Your task to perform on an android device: Go to privacy settings Image 0: 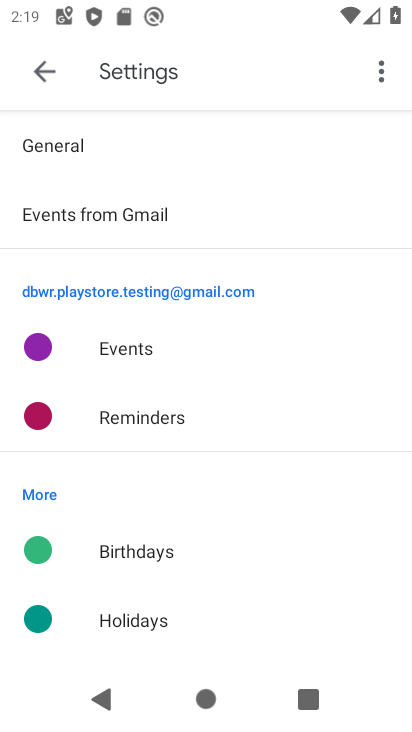
Step 0: press home button
Your task to perform on an android device: Go to privacy settings Image 1: 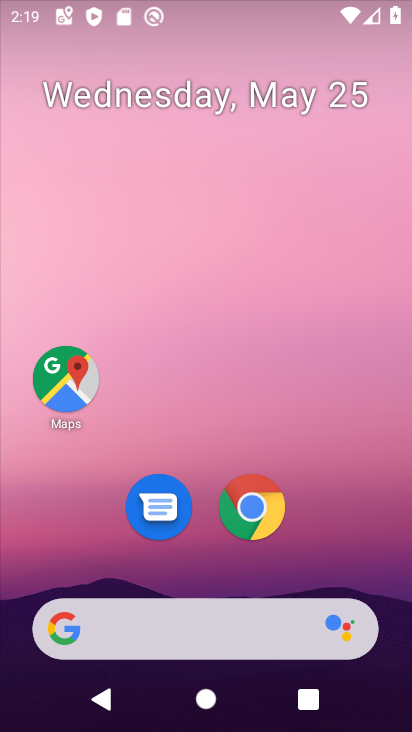
Step 1: drag from (250, 657) to (236, 133)
Your task to perform on an android device: Go to privacy settings Image 2: 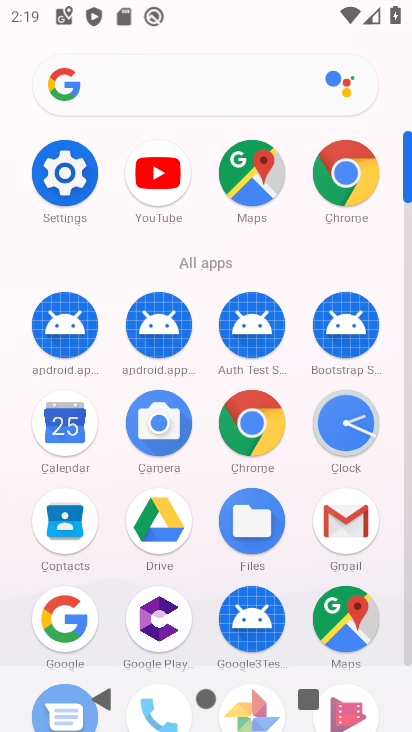
Step 2: click (79, 173)
Your task to perform on an android device: Go to privacy settings Image 3: 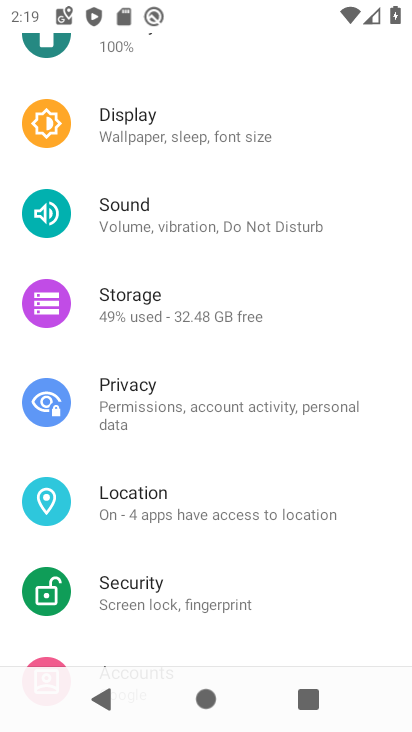
Step 3: drag from (188, 522) to (249, 139)
Your task to perform on an android device: Go to privacy settings Image 4: 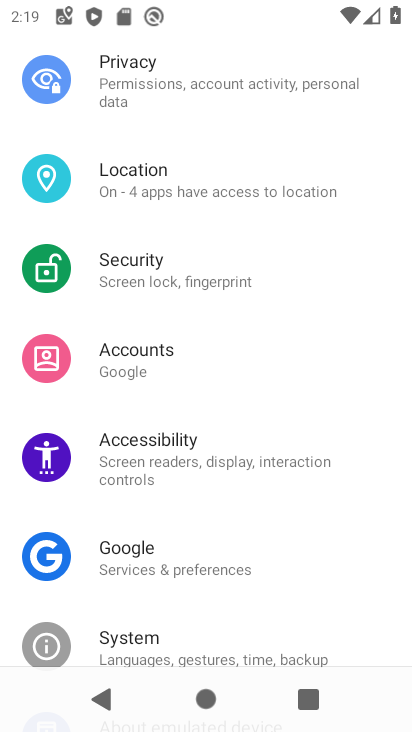
Step 4: drag from (248, 207) to (246, 583)
Your task to perform on an android device: Go to privacy settings Image 5: 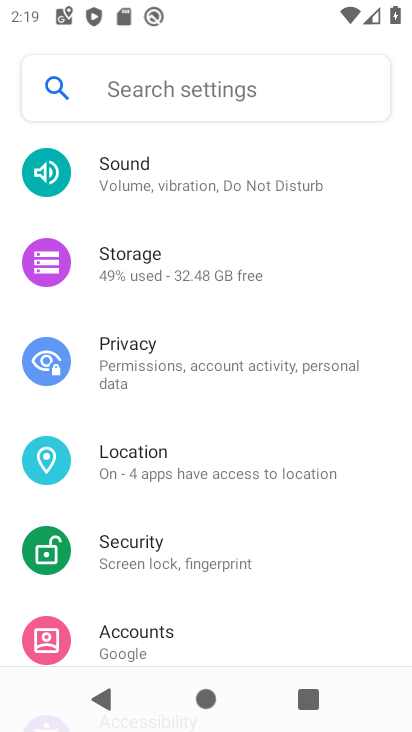
Step 5: click (202, 357)
Your task to perform on an android device: Go to privacy settings Image 6: 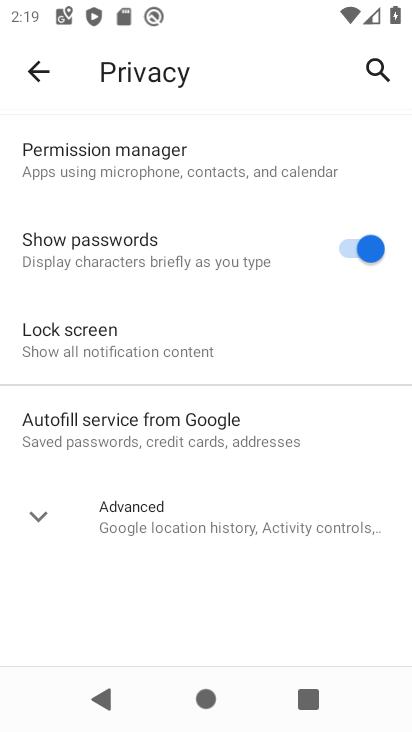
Step 6: click (253, 529)
Your task to perform on an android device: Go to privacy settings Image 7: 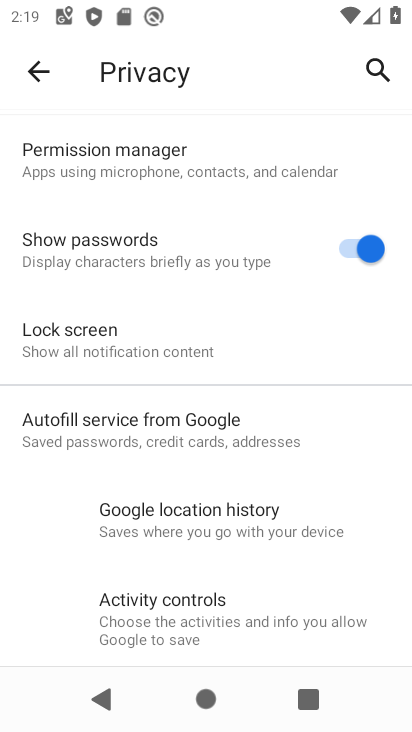
Step 7: task complete